Your task to perform on an android device: What is the recent news? Image 0: 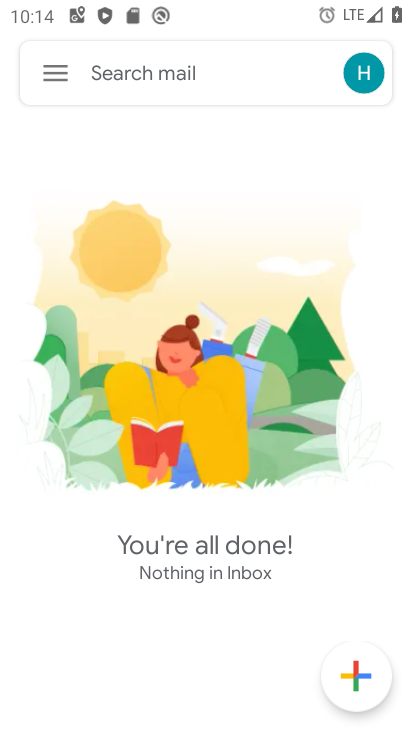
Step 0: press home button
Your task to perform on an android device: What is the recent news? Image 1: 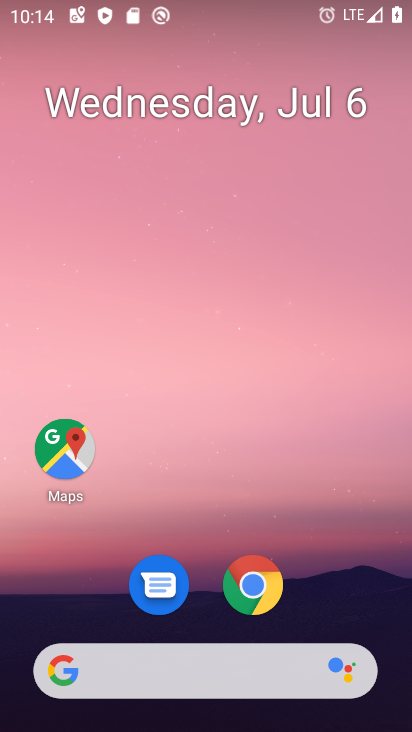
Step 1: drag from (224, 488) to (246, 66)
Your task to perform on an android device: What is the recent news? Image 2: 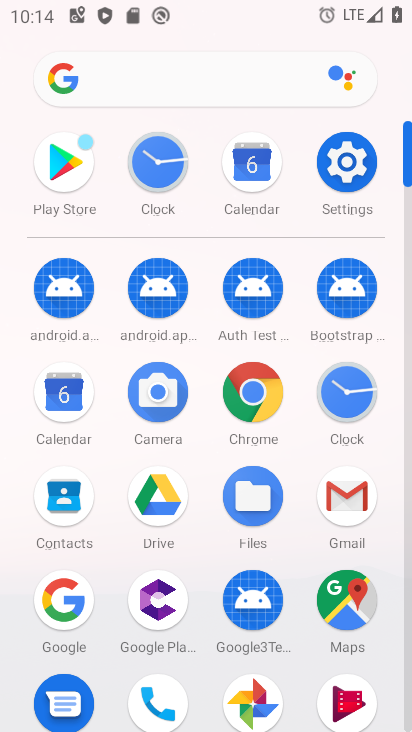
Step 2: click (172, 80)
Your task to perform on an android device: What is the recent news? Image 3: 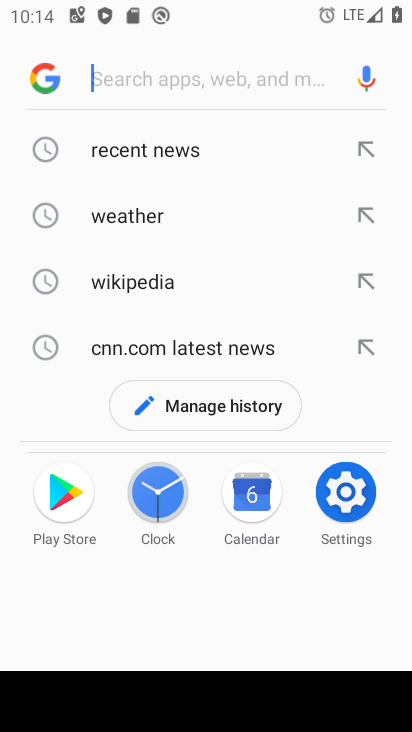
Step 3: click (172, 160)
Your task to perform on an android device: What is the recent news? Image 4: 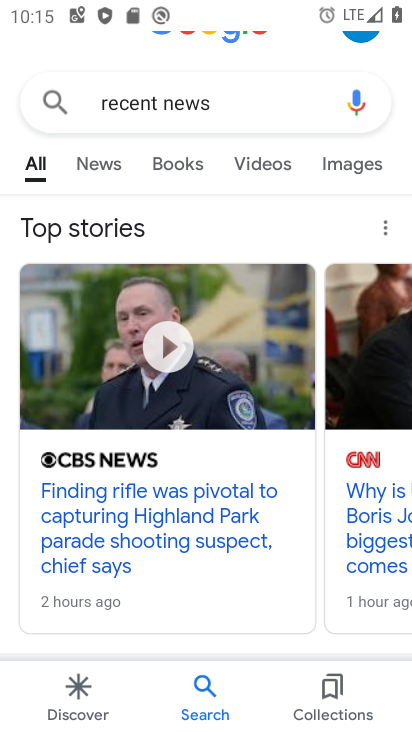
Step 4: click (102, 163)
Your task to perform on an android device: What is the recent news? Image 5: 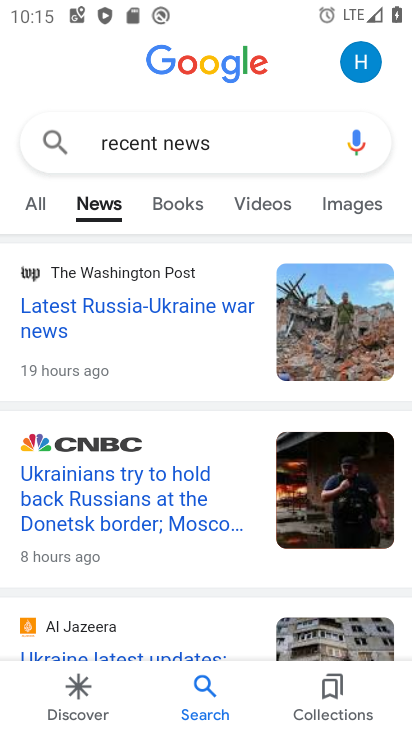
Step 5: task complete